Your task to perform on an android device: turn on wifi Image 0: 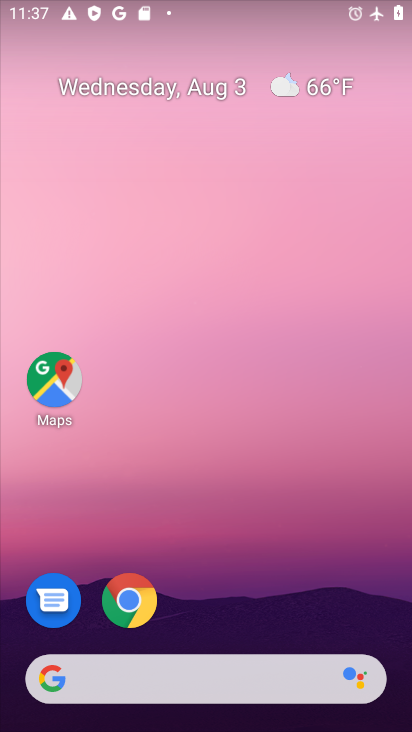
Step 0: drag from (221, 651) to (263, 132)
Your task to perform on an android device: turn on wifi Image 1: 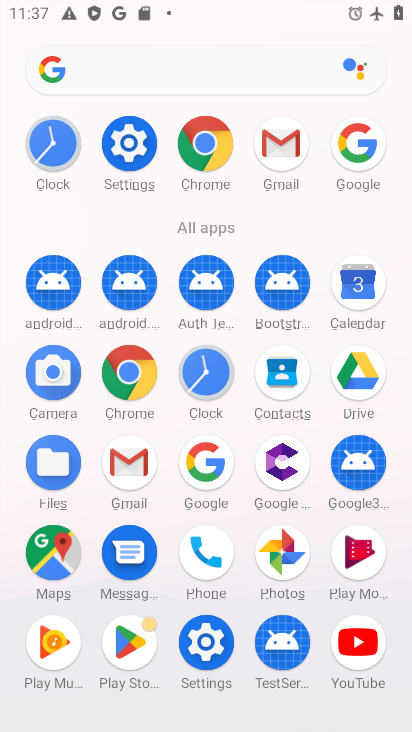
Step 1: click (147, 139)
Your task to perform on an android device: turn on wifi Image 2: 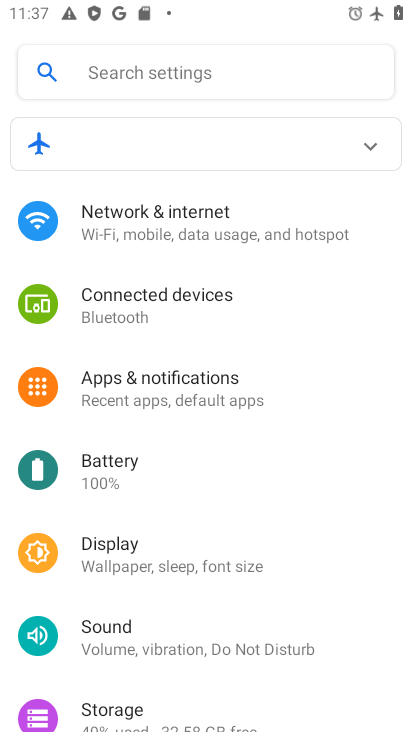
Step 2: click (179, 206)
Your task to perform on an android device: turn on wifi Image 3: 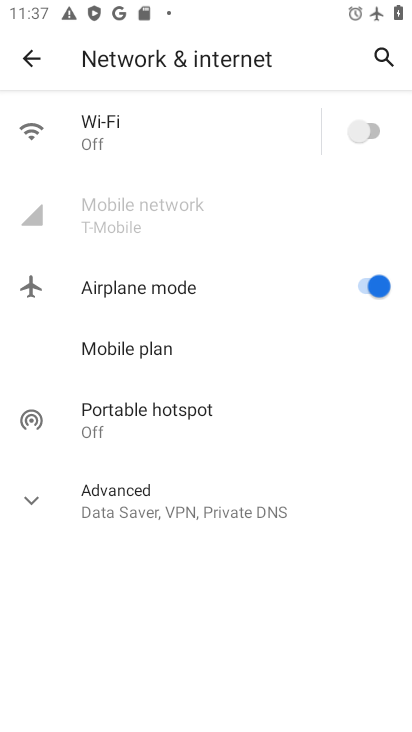
Step 3: click (366, 134)
Your task to perform on an android device: turn on wifi Image 4: 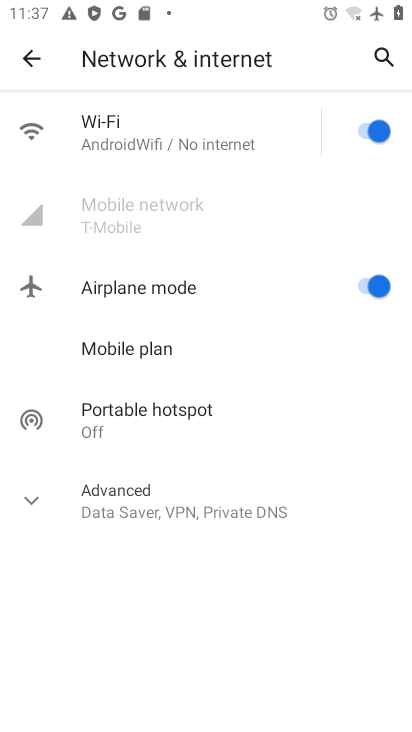
Step 4: task complete